Your task to perform on an android device: Do I have any events this weekend? Image 0: 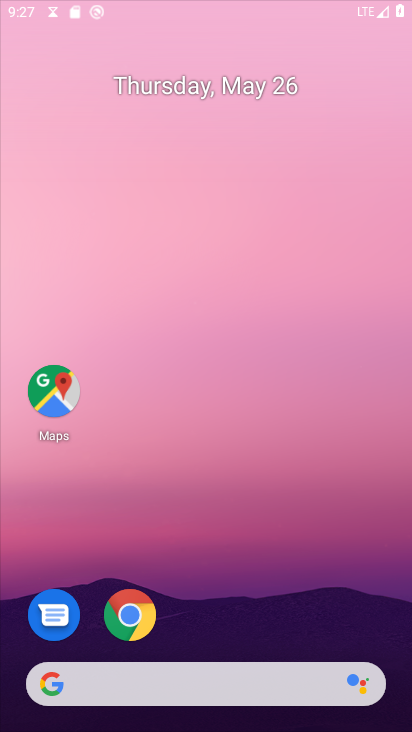
Step 0: drag from (283, 612) to (323, 203)
Your task to perform on an android device: Do I have any events this weekend? Image 1: 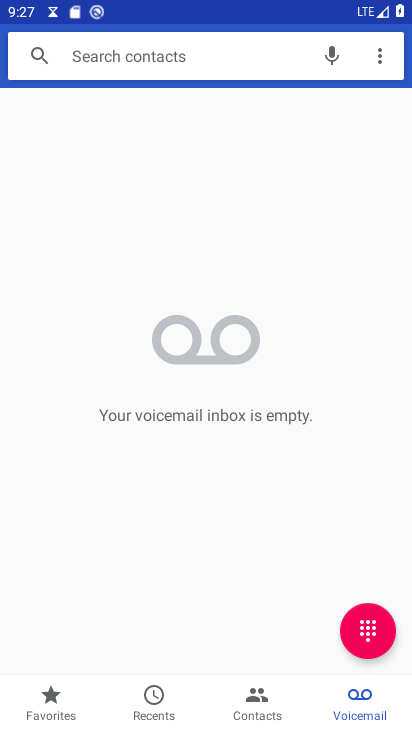
Step 1: press home button
Your task to perform on an android device: Do I have any events this weekend? Image 2: 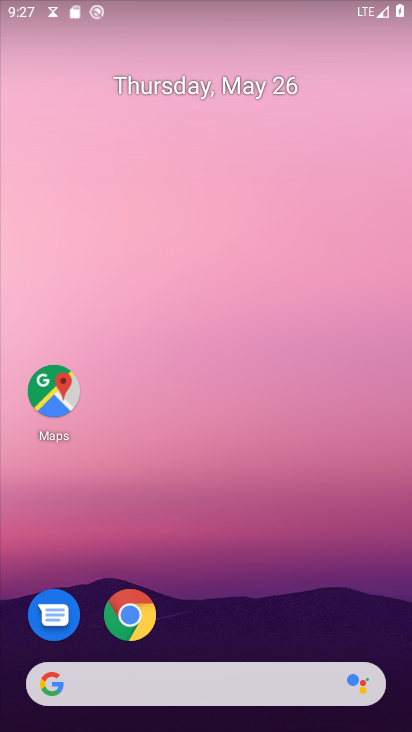
Step 2: drag from (251, 564) to (309, 246)
Your task to perform on an android device: Do I have any events this weekend? Image 3: 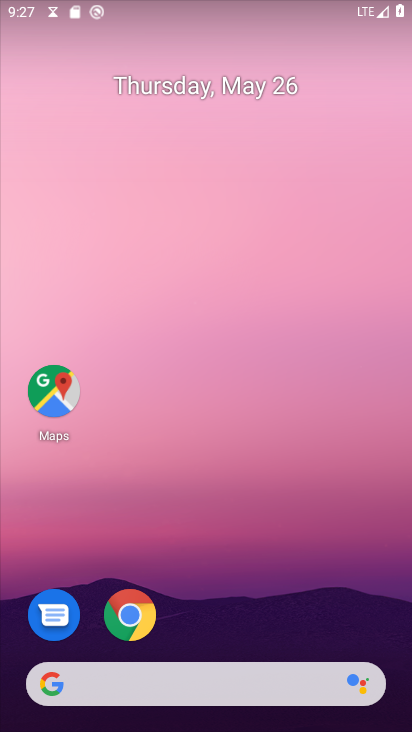
Step 3: drag from (224, 642) to (265, 190)
Your task to perform on an android device: Do I have any events this weekend? Image 4: 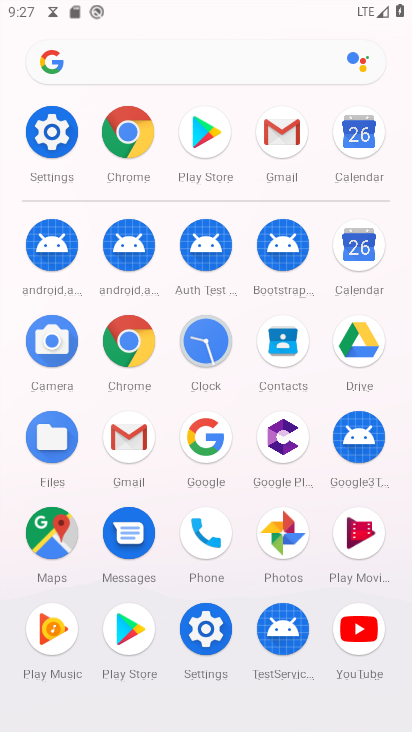
Step 4: click (356, 249)
Your task to perform on an android device: Do I have any events this weekend? Image 5: 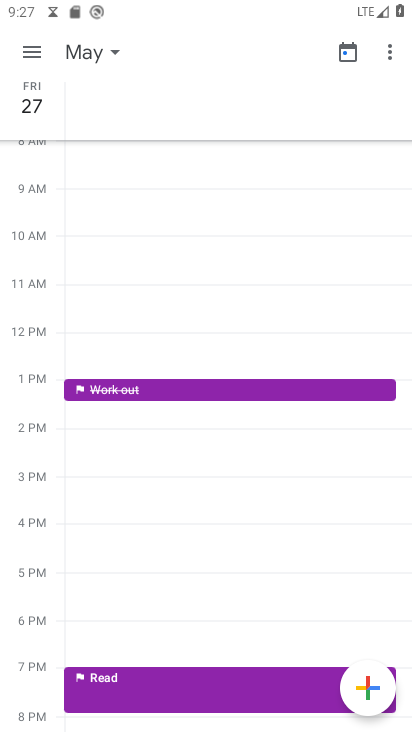
Step 5: click (28, 51)
Your task to perform on an android device: Do I have any events this weekend? Image 6: 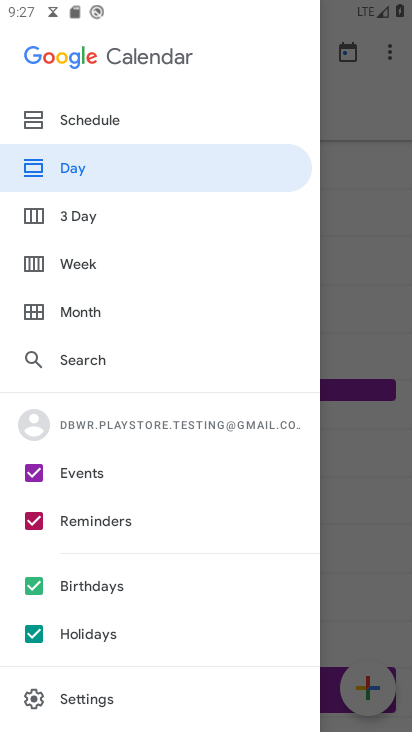
Step 6: click (104, 305)
Your task to perform on an android device: Do I have any events this weekend? Image 7: 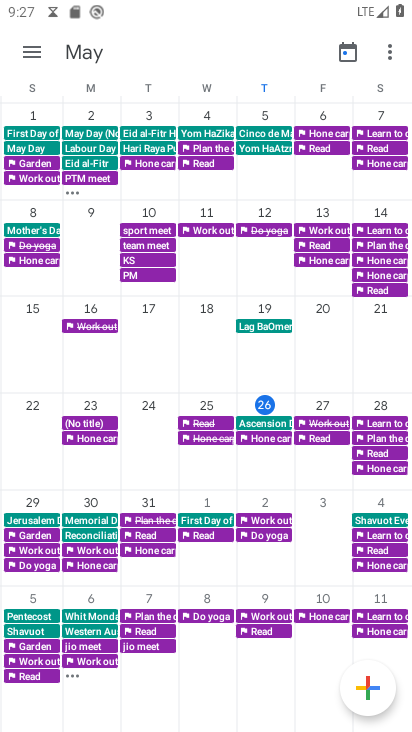
Step 7: click (26, 54)
Your task to perform on an android device: Do I have any events this weekend? Image 8: 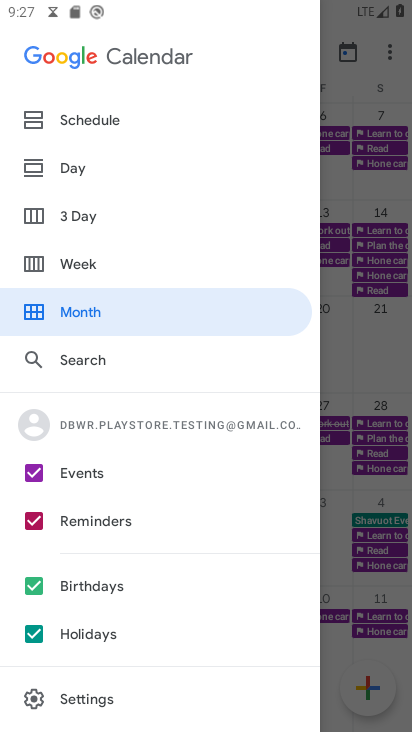
Step 8: click (100, 264)
Your task to perform on an android device: Do I have any events this weekend? Image 9: 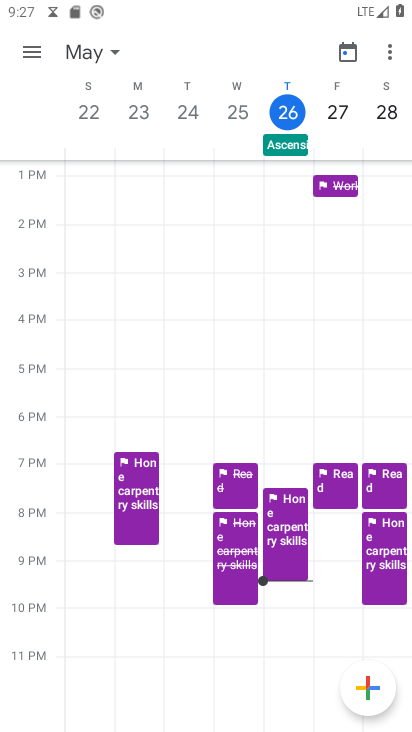
Step 9: task complete